Your task to perform on an android device: change notifications settings Image 0: 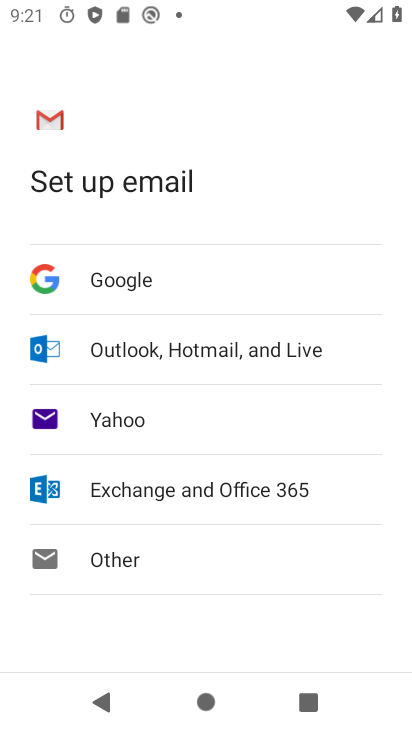
Step 0: press home button
Your task to perform on an android device: change notifications settings Image 1: 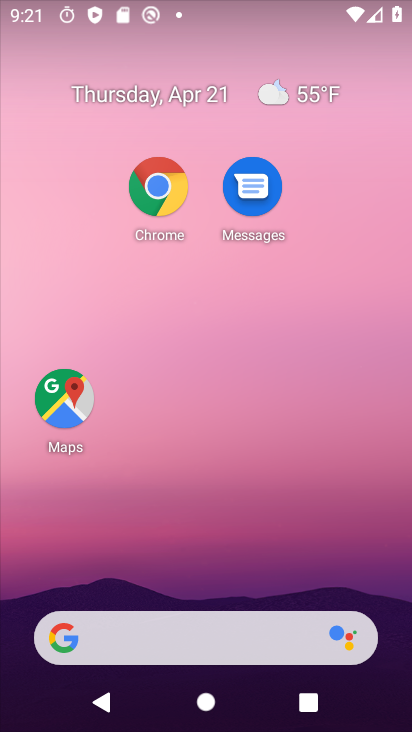
Step 1: drag from (204, 517) to (228, 6)
Your task to perform on an android device: change notifications settings Image 2: 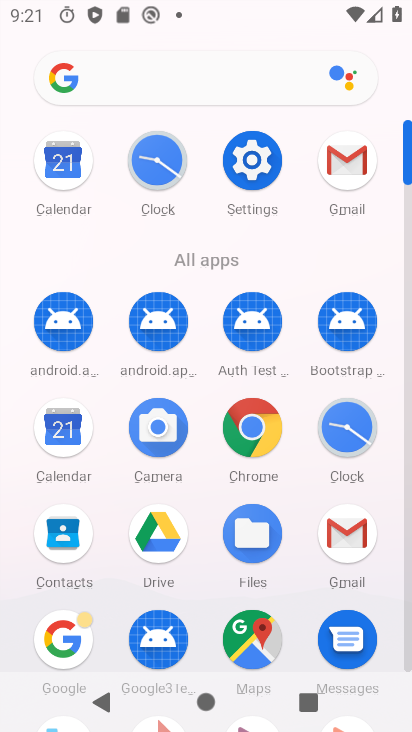
Step 2: click (253, 160)
Your task to perform on an android device: change notifications settings Image 3: 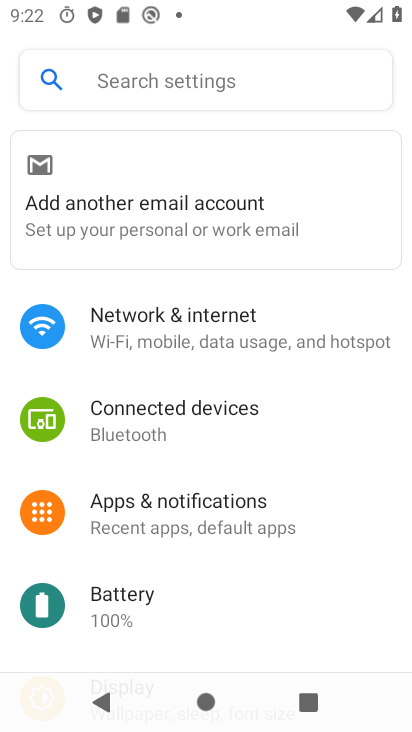
Step 3: click (217, 519)
Your task to perform on an android device: change notifications settings Image 4: 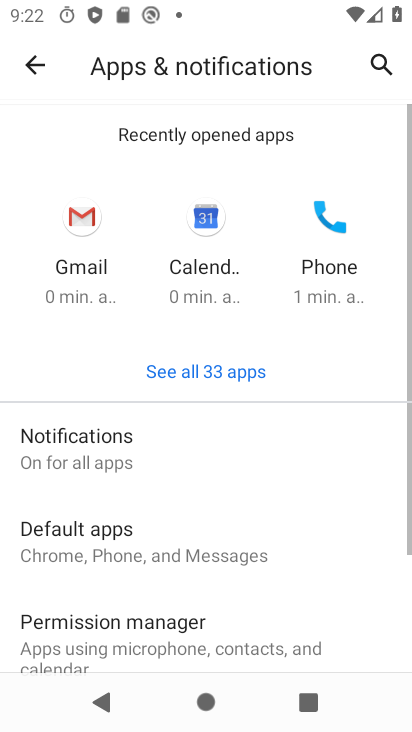
Step 4: click (134, 467)
Your task to perform on an android device: change notifications settings Image 5: 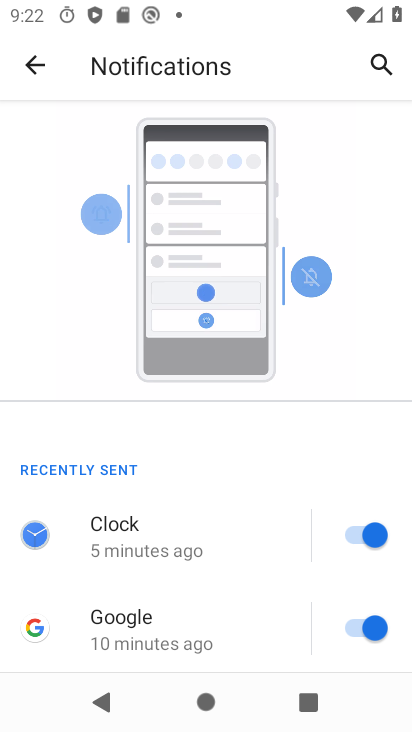
Step 5: drag from (246, 633) to (318, 165)
Your task to perform on an android device: change notifications settings Image 6: 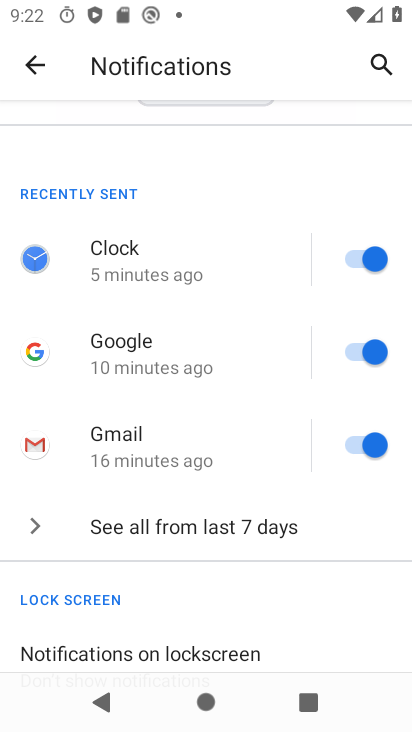
Step 6: drag from (190, 321) to (214, 609)
Your task to perform on an android device: change notifications settings Image 7: 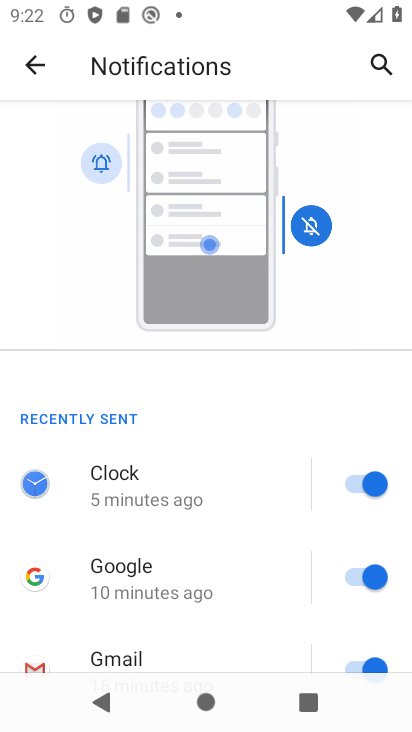
Step 7: drag from (212, 581) to (311, 0)
Your task to perform on an android device: change notifications settings Image 8: 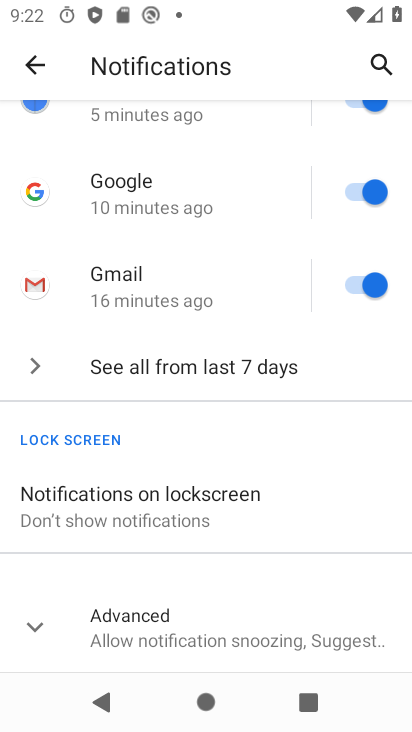
Step 8: click (166, 616)
Your task to perform on an android device: change notifications settings Image 9: 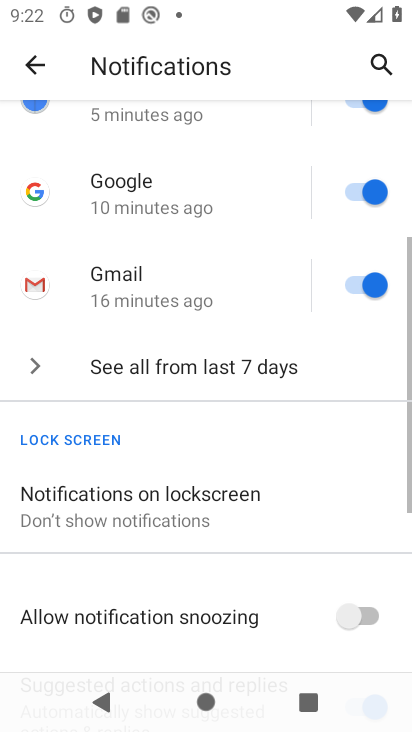
Step 9: drag from (175, 470) to (184, 185)
Your task to perform on an android device: change notifications settings Image 10: 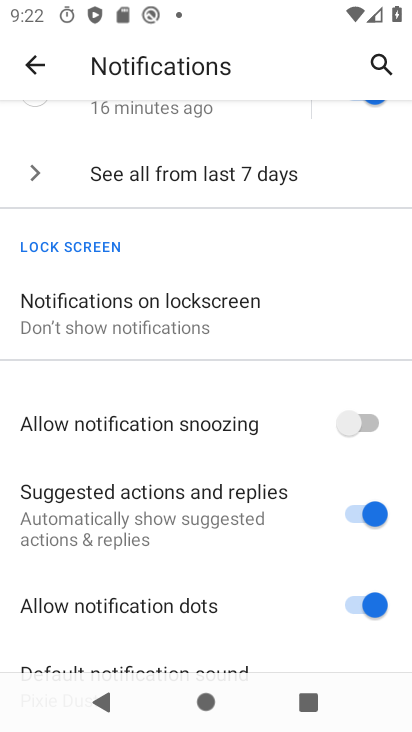
Step 10: drag from (203, 635) to (237, 292)
Your task to perform on an android device: change notifications settings Image 11: 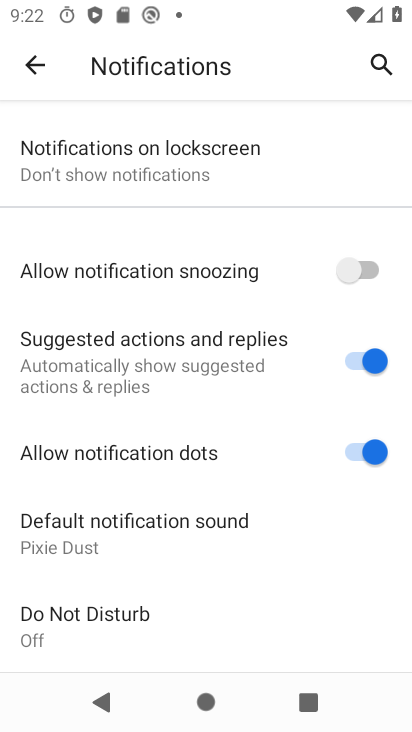
Step 11: drag from (237, 353) to (180, 727)
Your task to perform on an android device: change notifications settings Image 12: 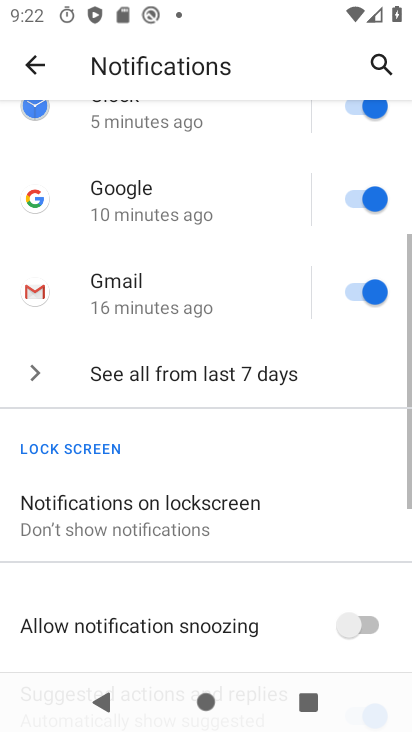
Step 12: drag from (265, 182) to (256, 570)
Your task to perform on an android device: change notifications settings Image 13: 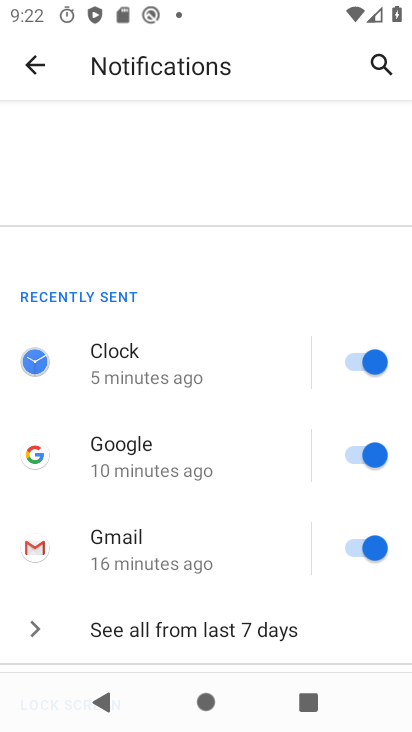
Step 13: drag from (245, 268) to (222, 627)
Your task to perform on an android device: change notifications settings Image 14: 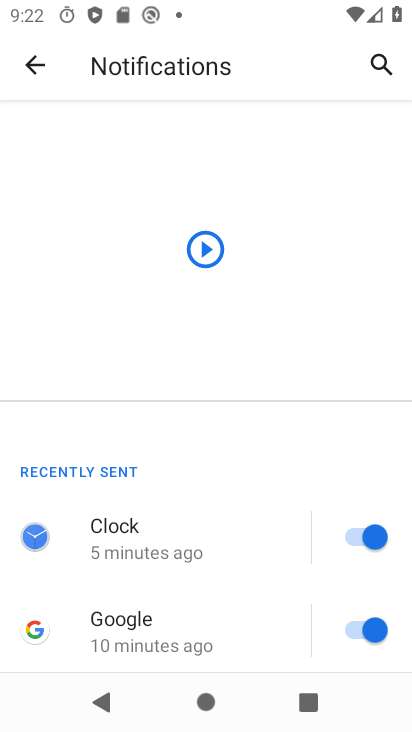
Step 14: click (367, 547)
Your task to perform on an android device: change notifications settings Image 15: 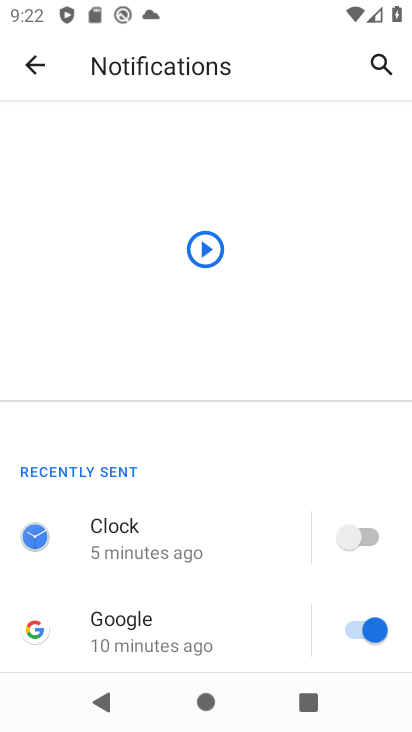
Step 15: task complete